Your task to perform on an android device: turn vacation reply on in the gmail app Image 0: 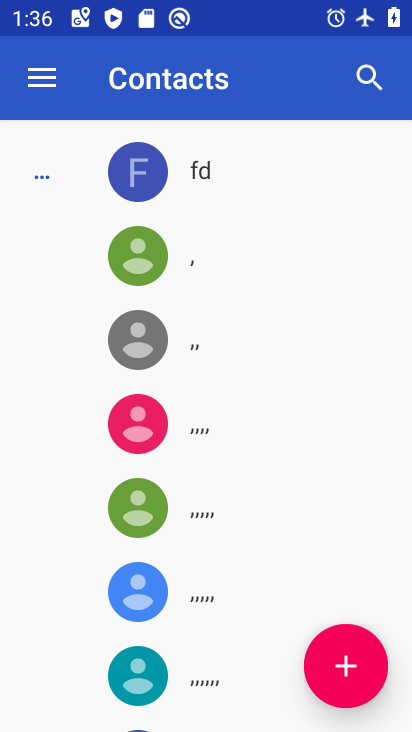
Step 0: press home button
Your task to perform on an android device: turn vacation reply on in the gmail app Image 1: 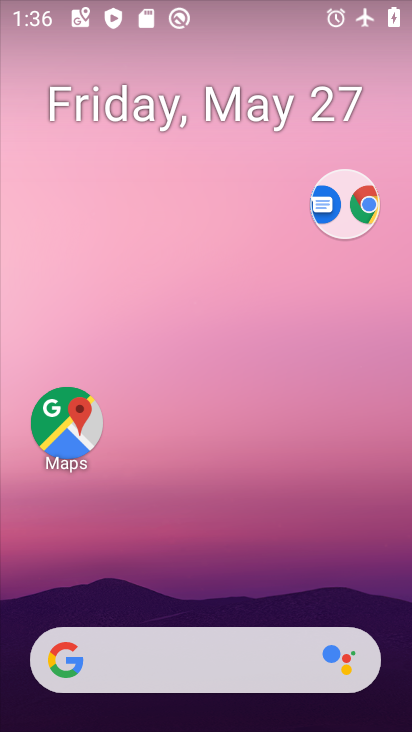
Step 1: drag from (211, 667) to (230, 35)
Your task to perform on an android device: turn vacation reply on in the gmail app Image 2: 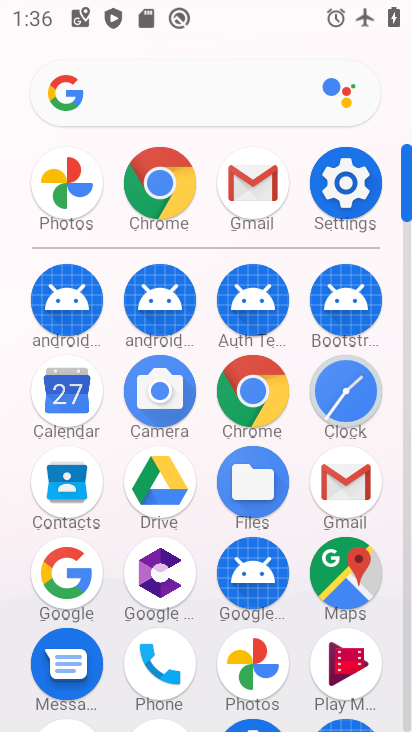
Step 2: click (350, 490)
Your task to perform on an android device: turn vacation reply on in the gmail app Image 3: 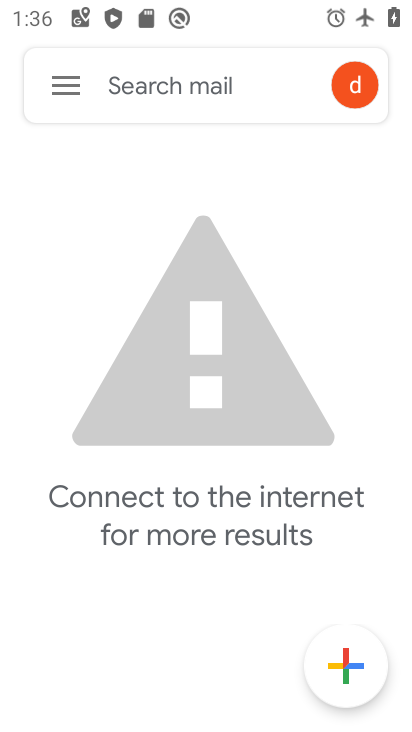
Step 3: click (80, 85)
Your task to perform on an android device: turn vacation reply on in the gmail app Image 4: 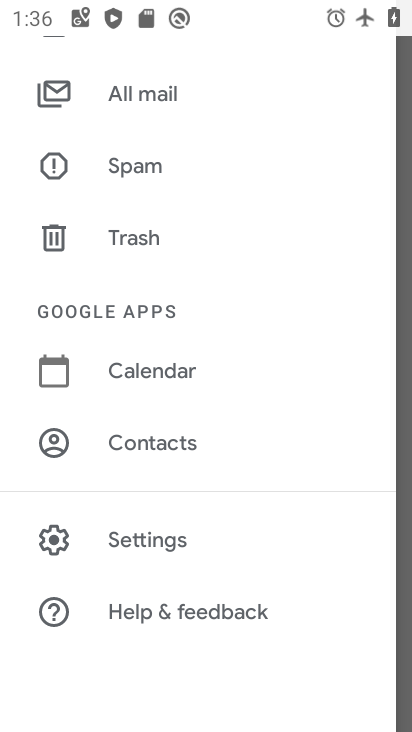
Step 4: click (178, 544)
Your task to perform on an android device: turn vacation reply on in the gmail app Image 5: 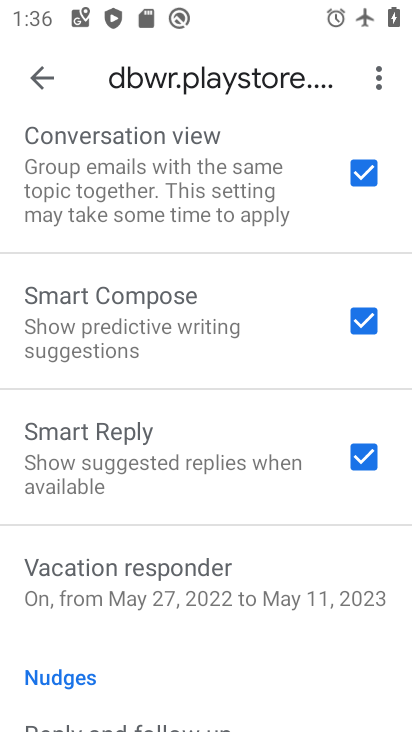
Step 5: click (91, 590)
Your task to perform on an android device: turn vacation reply on in the gmail app Image 6: 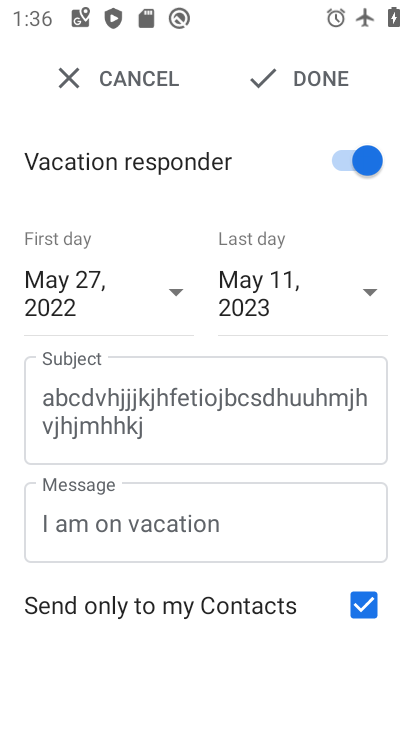
Step 6: task complete